Your task to perform on an android device: toggle notifications settings in the gmail app Image 0: 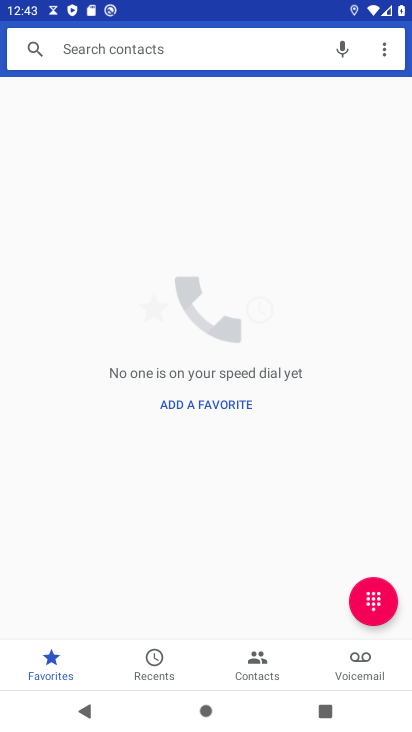
Step 0: drag from (211, 617) to (241, 255)
Your task to perform on an android device: toggle notifications settings in the gmail app Image 1: 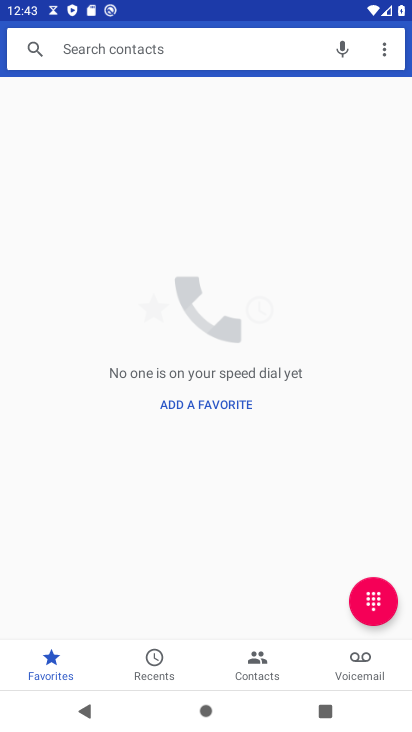
Step 1: press home button
Your task to perform on an android device: toggle notifications settings in the gmail app Image 2: 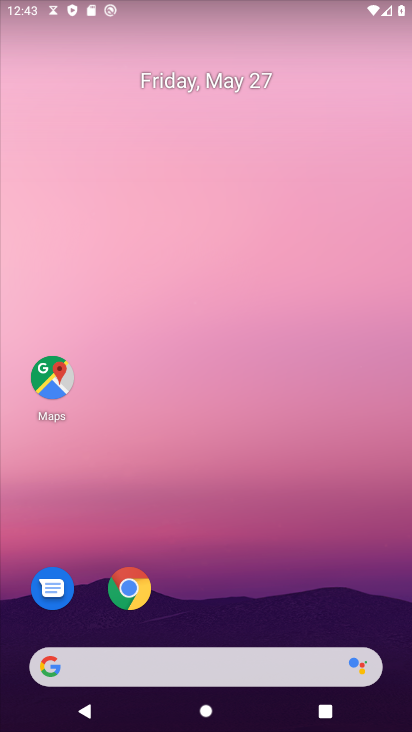
Step 2: drag from (214, 617) to (222, 40)
Your task to perform on an android device: toggle notifications settings in the gmail app Image 3: 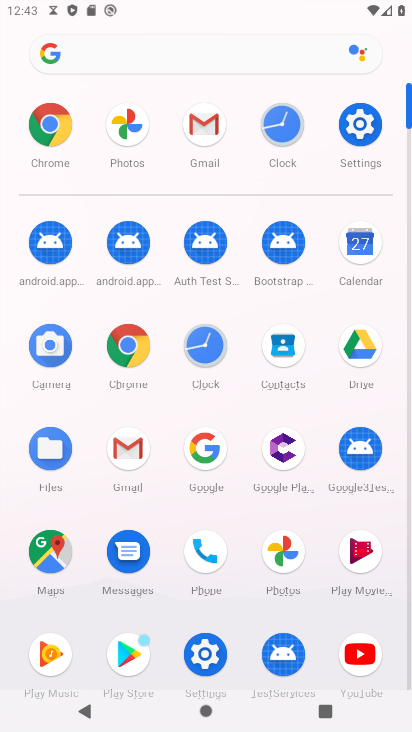
Step 3: click (201, 121)
Your task to perform on an android device: toggle notifications settings in the gmail app Image 4: 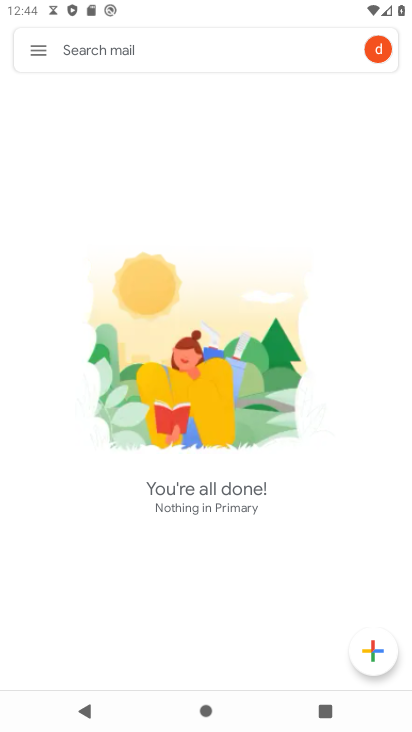
Step 4: click (36, 48)
Your task to perform on an android device: toggle notifications settings in the gmail app Image 5: 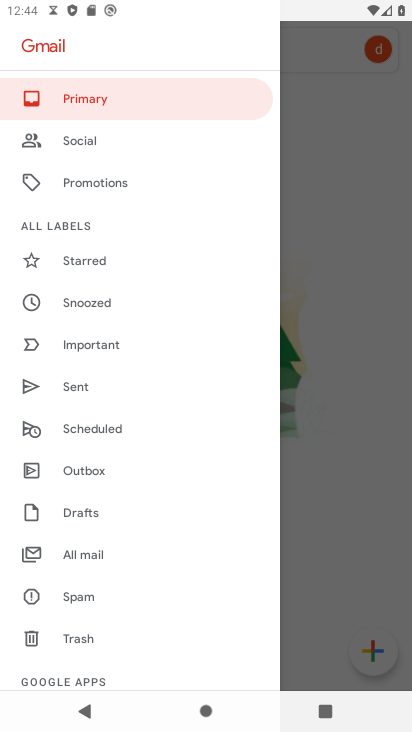
Step 5: drag from (103, 630) to (169, 74)
Your task to perform on an android device: toggle notifications settings in the gmail app Image 6: 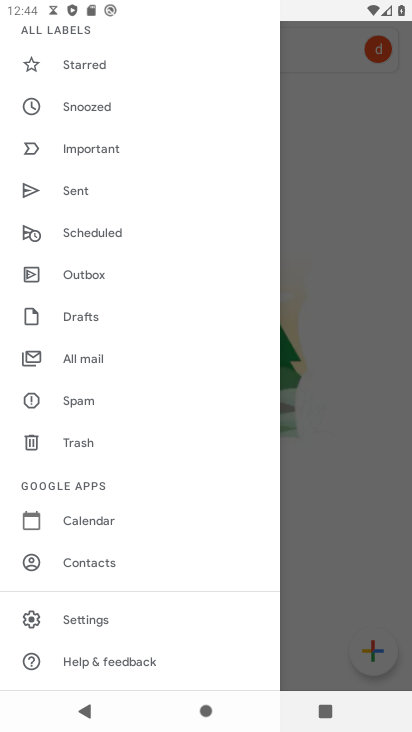
Step 6: drag from (122, 620) to (179, 130)
Your task to perform on an android device: toggle notifications settings in the gmail app Image 7: 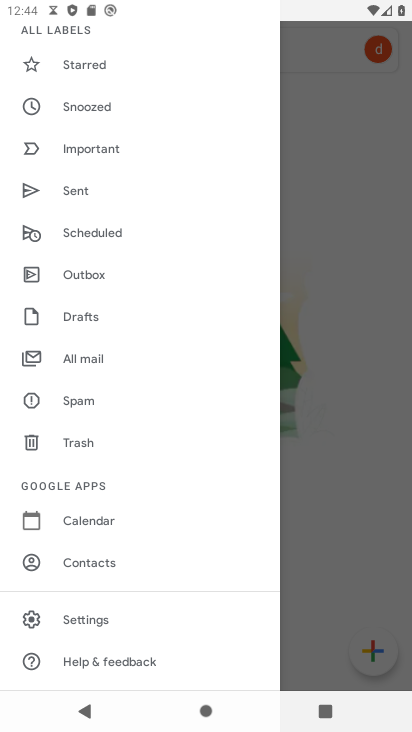
Step 7: click (116, 614)
Your task to perform on an android device: toggle notifications settings in the gmail app Image 8: 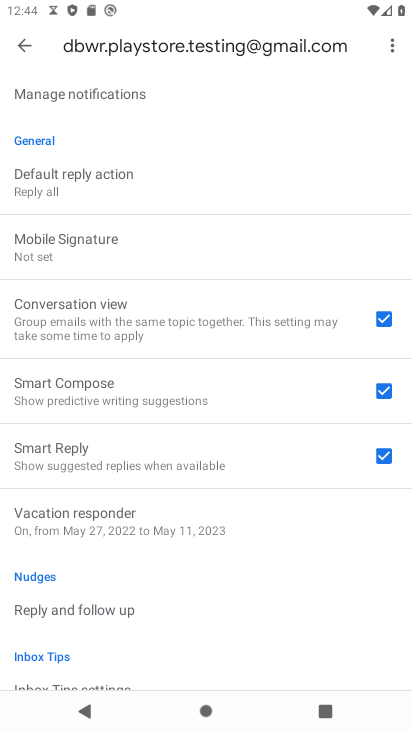
Step 8: drag from (117, 155) to (110, 628)
Your task to perform on an android device: toggle notifications settings in the gmail app Image 9: 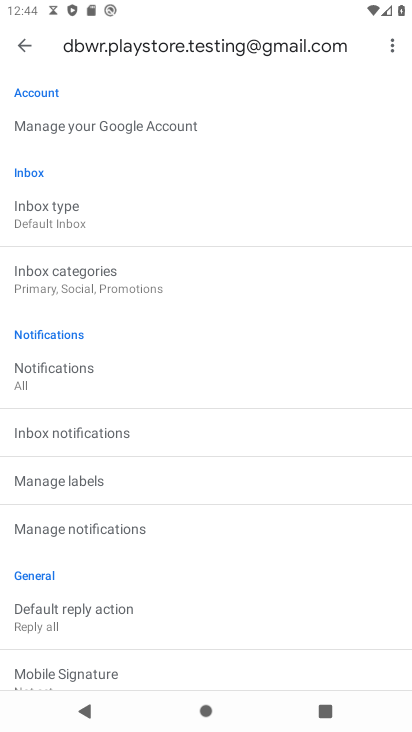
Step 9: click (27, 38)
Your task to perform on an android device: toggle notifications settings in the gmail app Image 10: 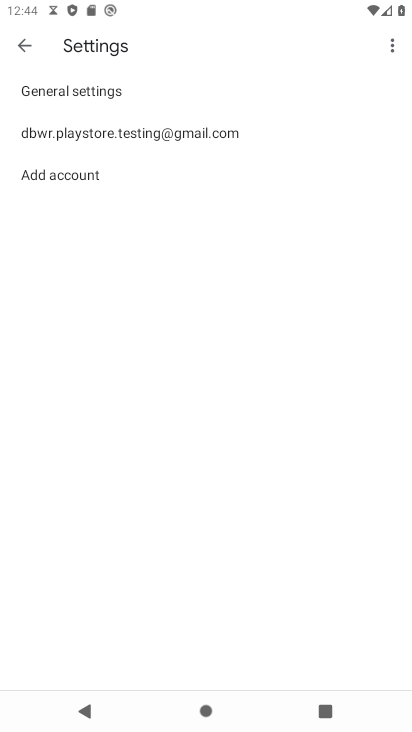
Step 10: click (128, 93)
Your task to perform on an android device: toggle notifications settings in the gmail app Image 11: 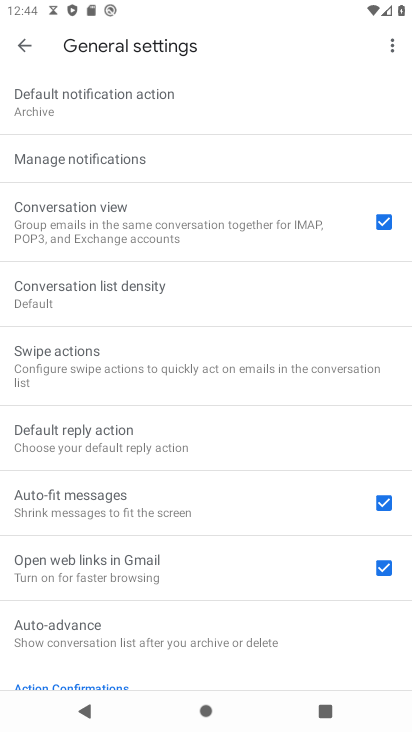
Step 11: click (151, 154)
Your task to perform on an android device: toggle notifications settings in the gmail app Image 12: 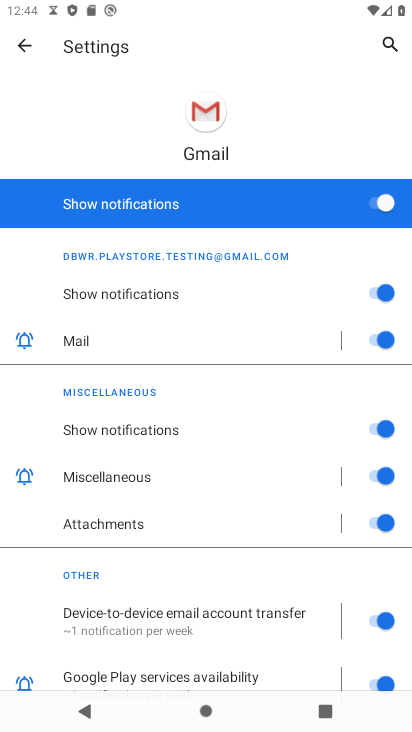
Step 12: click (365, 202)
Your task to perform on an android device: toggle notifications settings in the gmail app Image 13: 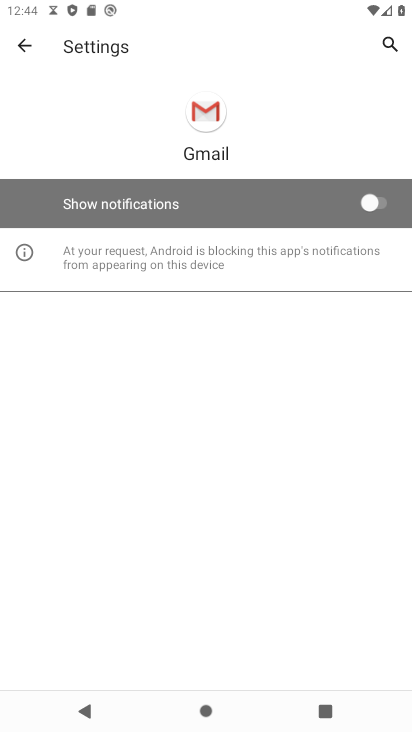
Step 13: task complete